Your task to perform on an android device: Search for a new eyeshadow on Sephora Image 0: 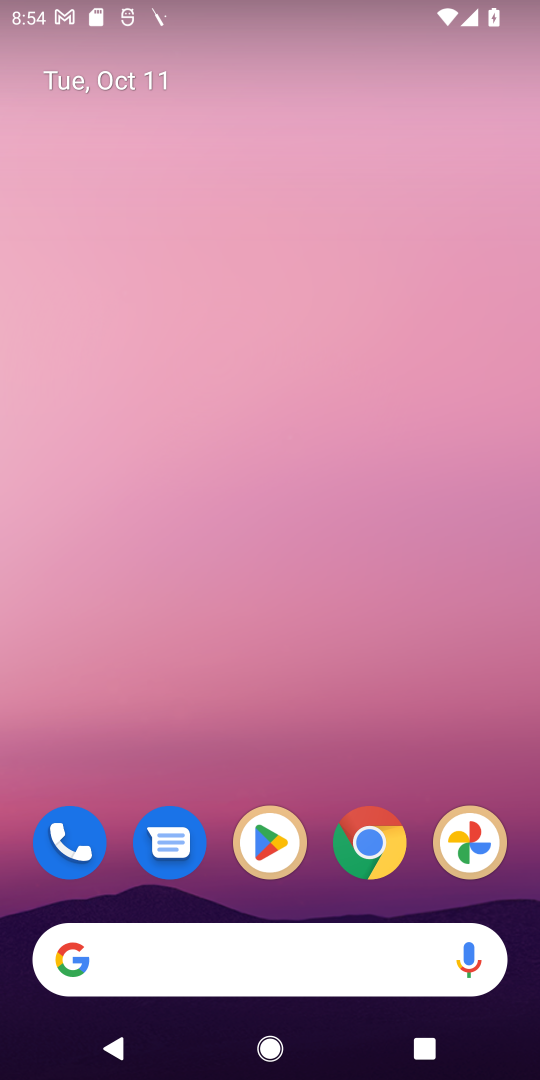
Step 0: click (380, 851)
Your task to perform on an android device: Search for a new eyeshadow on Sephora Image 1: 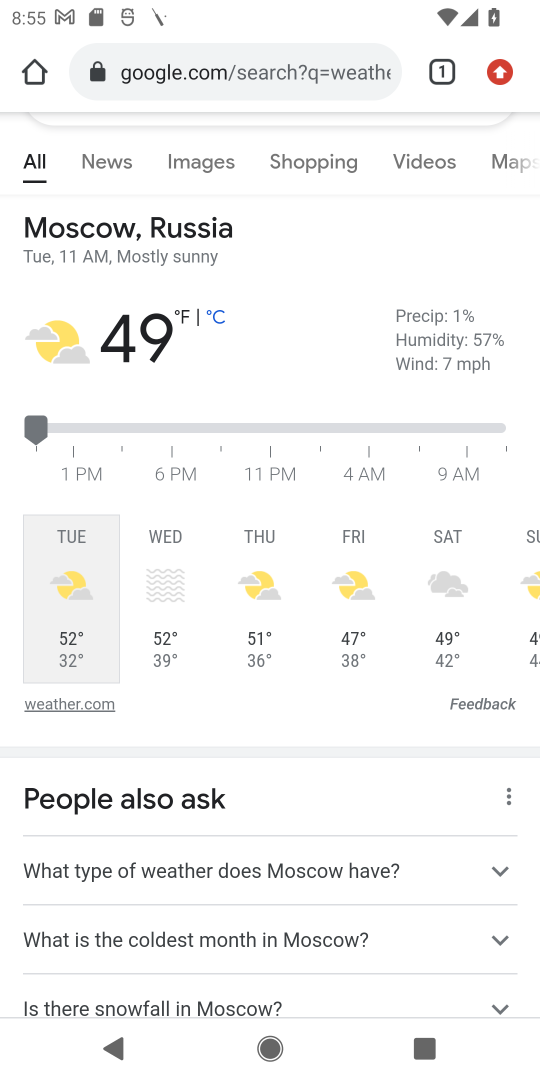
Step 1: click (274, 61)
Your task to perform on an android device: Search for a new eyeshadow on Sephora Image 2: 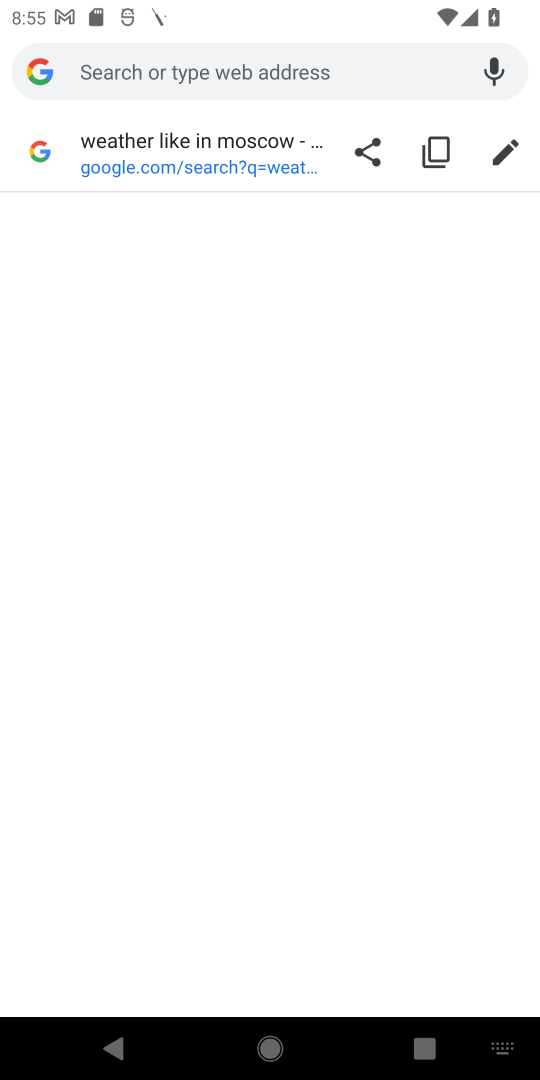
Step 2: type "news eyeshadow on sephora"
Your task to perform on an android device: Search for a new eyeshadow on Sephora Image 3: 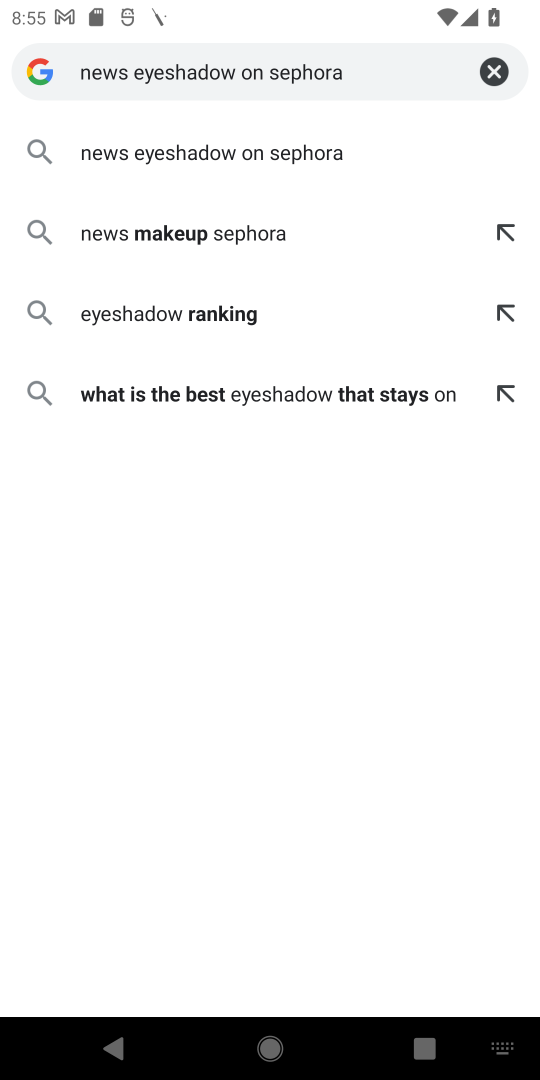
Step 3: click (165, 150)
Your task to perform on an android device: Search for a new eyeshadow on Sephora Image 4: 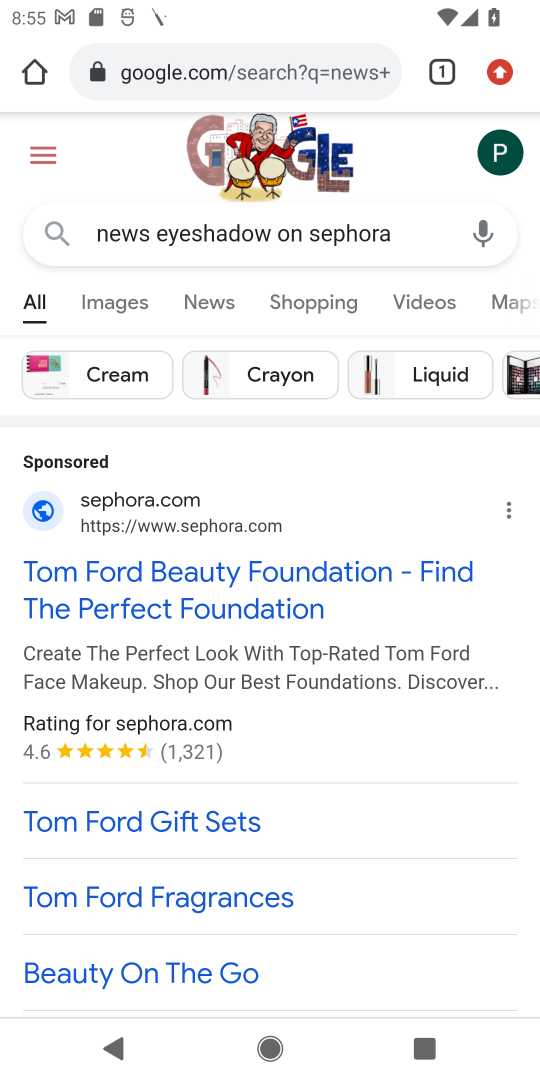
Step 4: drag from (349, 681) to (413, 163)
Your task to perform on an android device: Search for a new eyeshadow on Sephora Image 5: 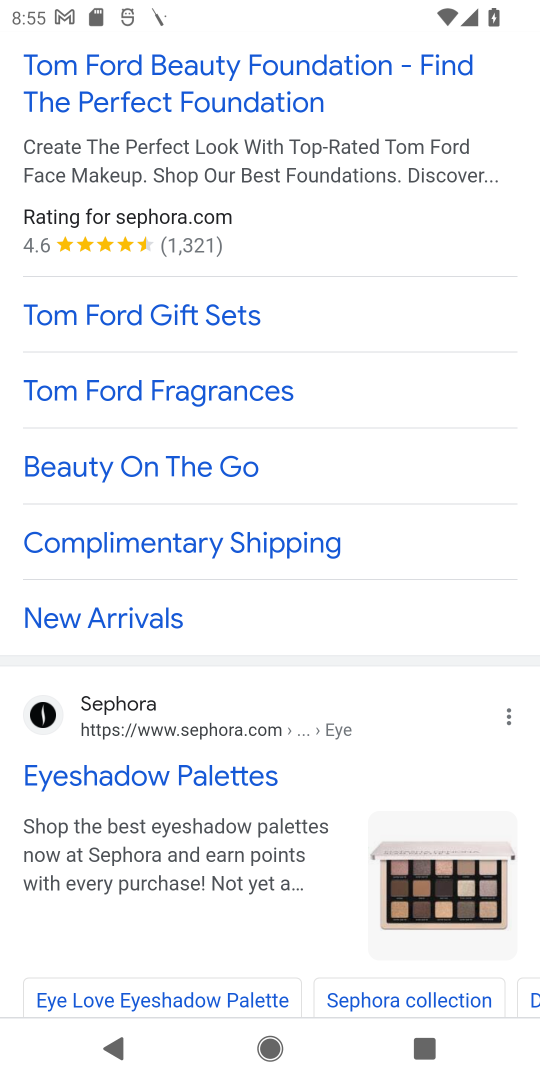
Step 5: click (119, 776)
Your task to perform on an android device: Search for a new eyeshadow on Sephora Image 6: 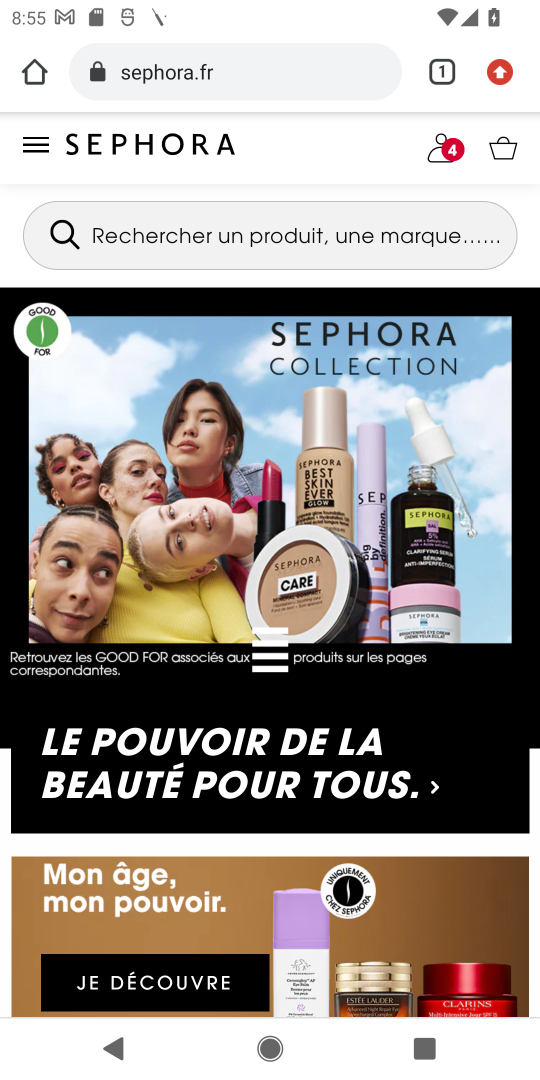
Step 6: click (294, 239)
Your task to perform on an android device: Search for a new eyeshadow on Sephora Image 7: 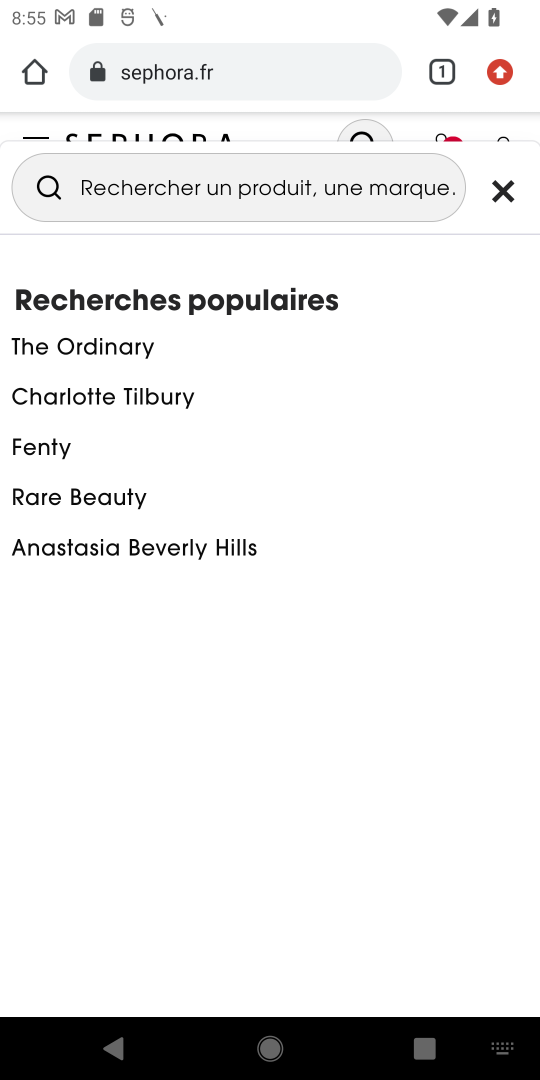
Step 7: type "new eyeshadow"
Your task to perform on an android device: Search for a new eyeshadow on Sephora Image 8: 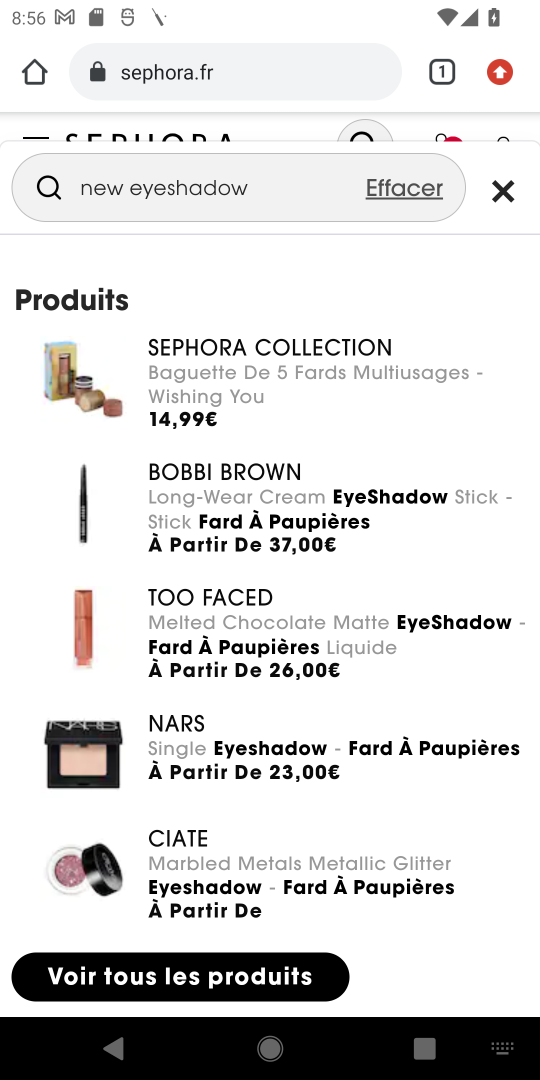
Step 8: task complete